Your task to perform on an android device: What's the weather going to be this weekend? Image 0: 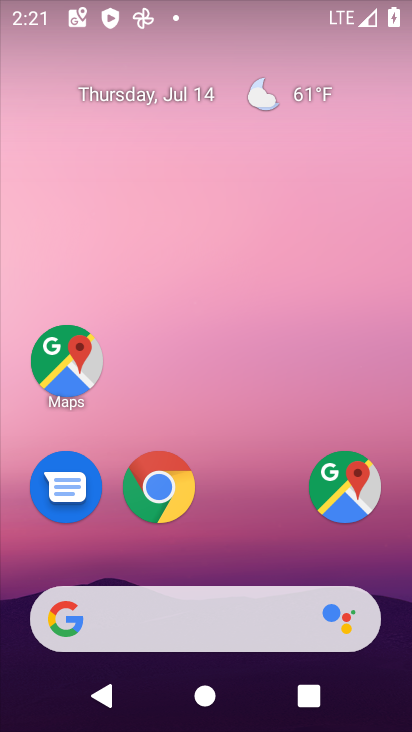
Step 0: click (272, 613)
Your task to perform on an android device: What's the weather going to be this weekend? Image 1: 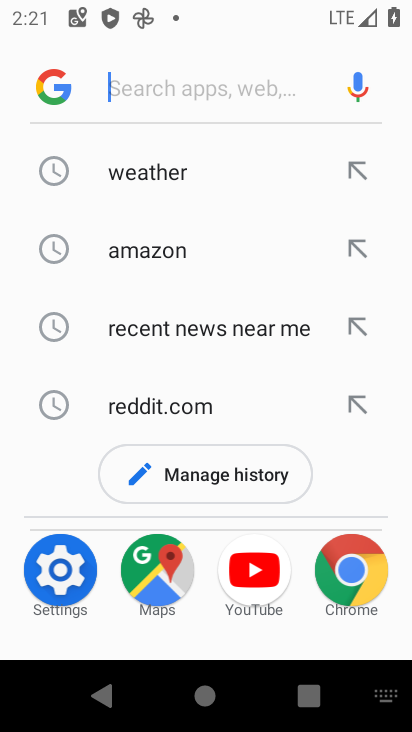
Step 1: click (175, 169)
Your task to perform on an android device: What's the weather going to be this weekend? Image 2: 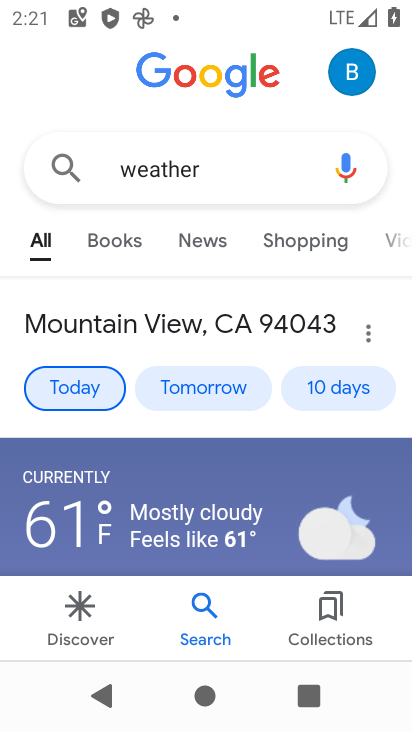
Step 2: click (336, 389)
Your task to perform on an android device: What's the weather going to be this weekend? Image 3: 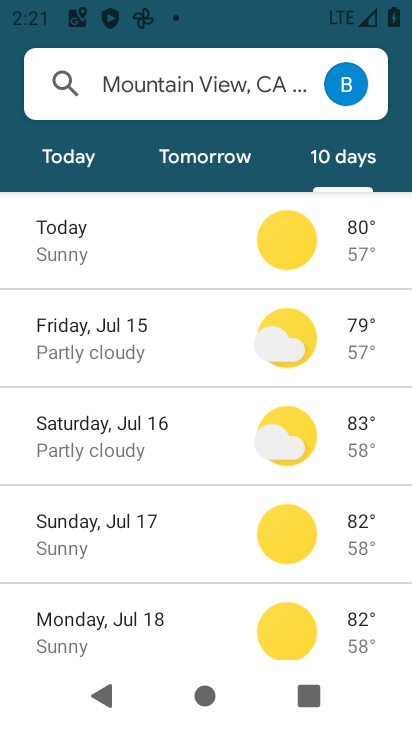
Step 3: drag from (202, 549) to (198, 404)
Your task to perform on an android device: What's the weather going to be this weekend? Image 4: 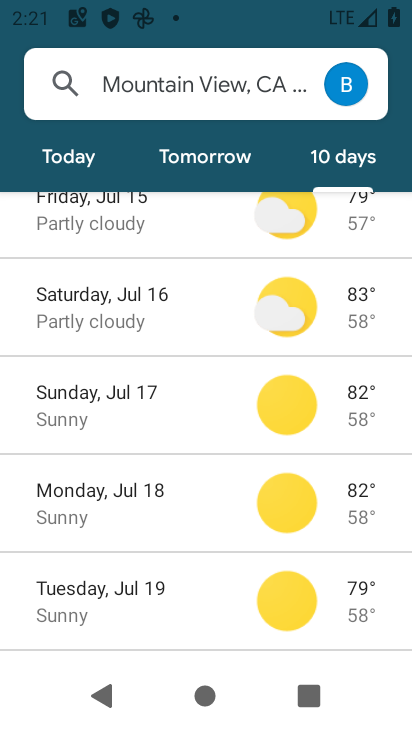
Step 4: click (175, 313)
Your task to perform on an android device: What's the weather going to be this weekend? Image 5: 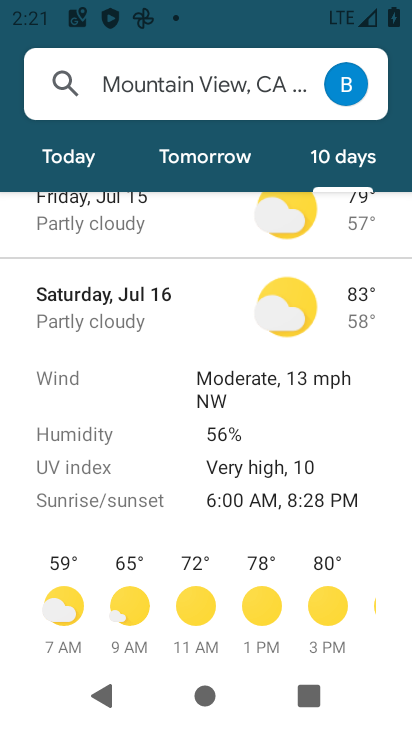
Step 5: task complete